Your task to perform on an android device: What's on my calendar tomorrow? Image 0: 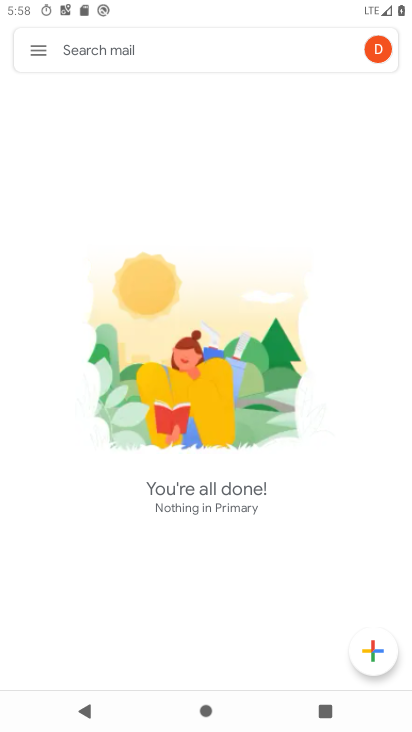
Step 0: press home button
Your task to perform on an android device: What's on my calendar tomorrow? Image 1: 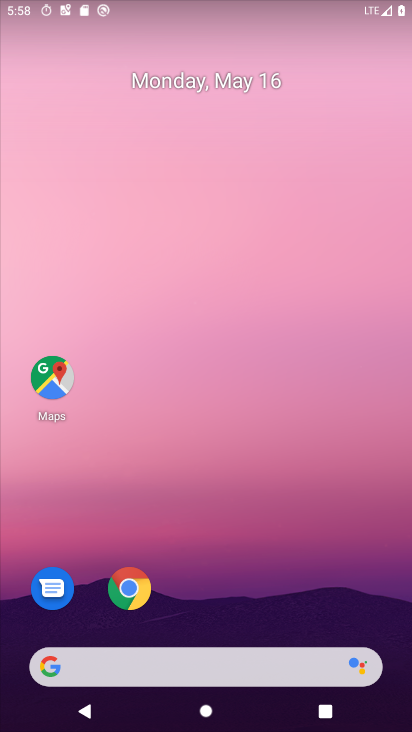
Step 1: drag from (226, 542) to (196, 5)
Your task to perform on an android device: What's on my calendar tomorrow? Image 2: 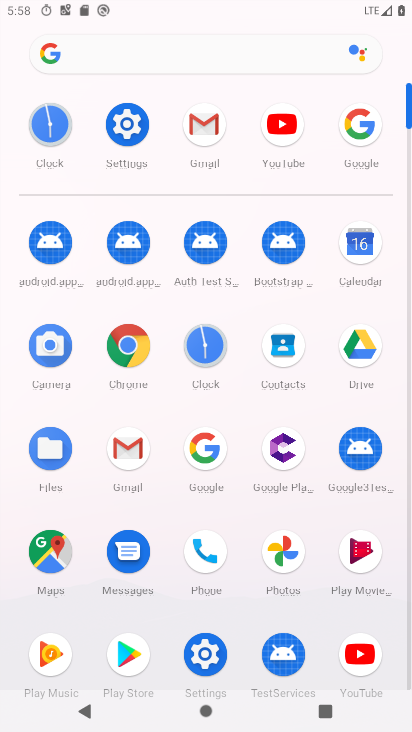
Step 2: click (360, 252)
Your task to perform on an android device: What's on my calendar tomorrow? Image 3: 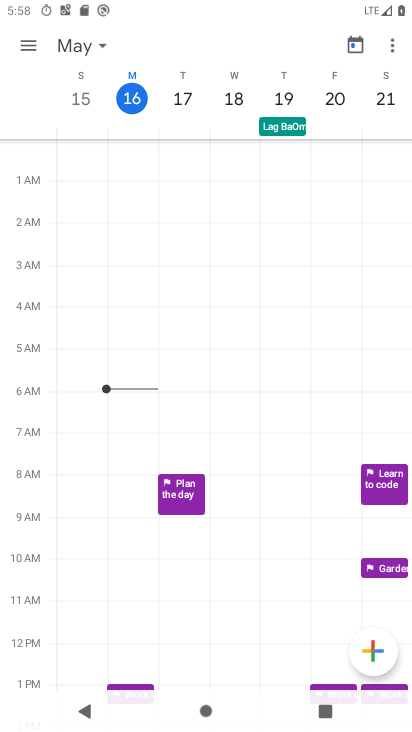
Step 3: task complete